Your task to perform on an android device: What's a good restaurant in New York? Image 0: 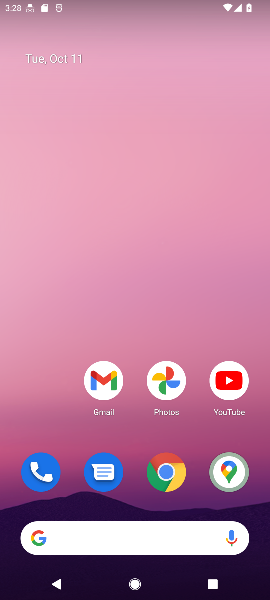
Step 0: click (155, 474)
Your task to perform on an android device: What's a good restaurant in New York? Image 1: 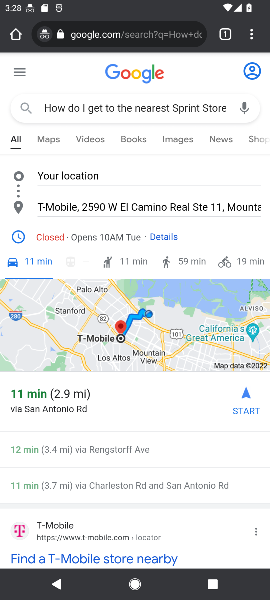
Step 1: click (168, 28)
Your task to perform on an android device: What's a good restaurant in New York? Image 2: 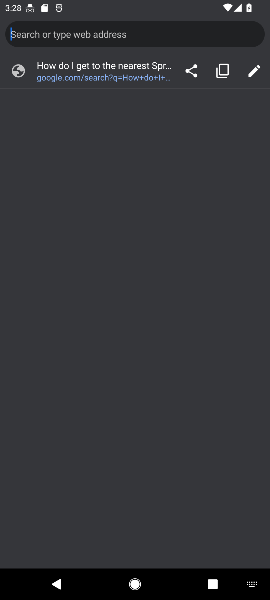
Step 2: type "What's a good restaurant in New York?"
Your task to perform on an android device: What's a good restaurant in New York? Image 3: 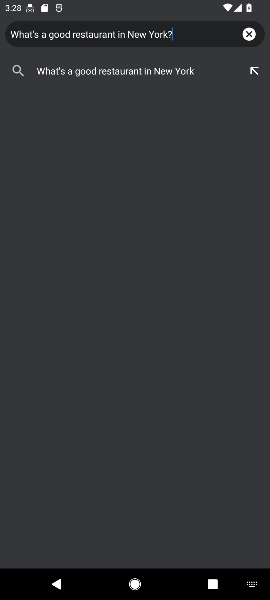
Step 3: type ""
Your task to perform on an android device: What's a good restaurant in New York? Image 4: 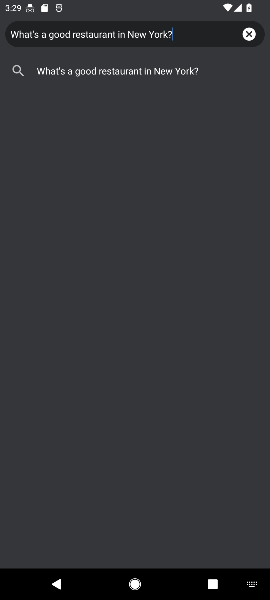
Step 4: click (166, 80)
Your task to perform on an android device: What's a good restaurant in New York? Image 5: 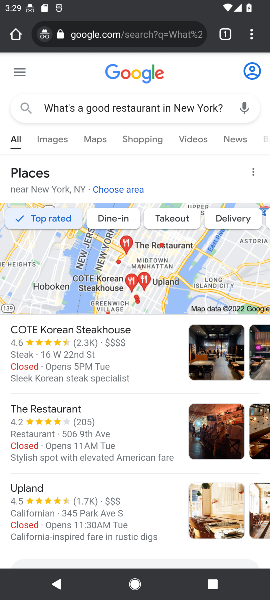
Step 5: task complete